Your task to perform on an android device: Play the last video I watched on Youtube Image 0: 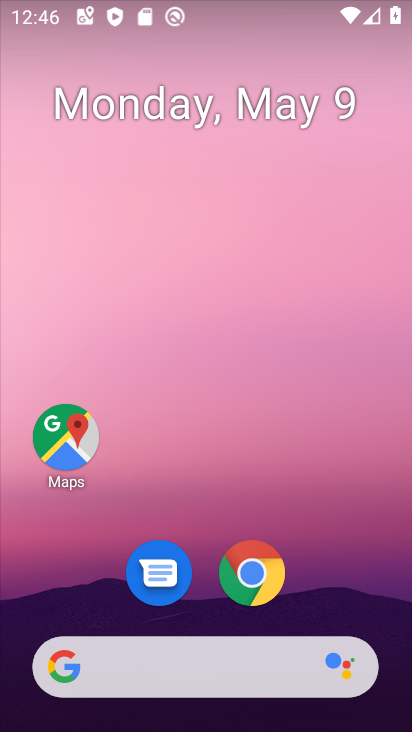
Step 0: drag from (322, 566) to (183, 158)
Your task to perform on an android device: Play the last video I watched on Youtube Image 1: 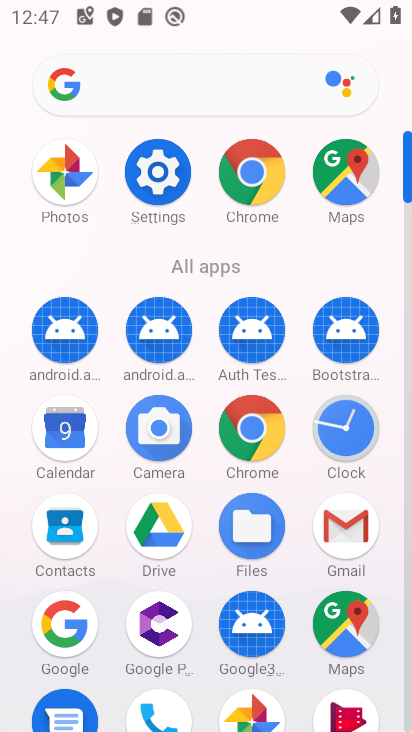
Step 1: drag from (321, 683) to (334, 173)
Your task to perform on an android device: Play the last video I watched on Youtube Image 2: 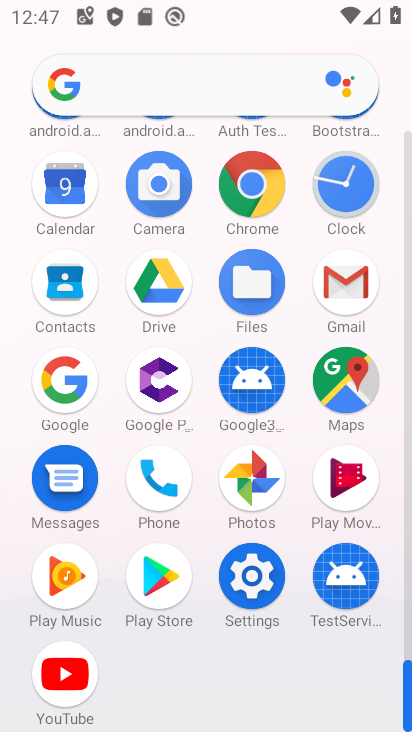
Step 2: click (74, 669)
Your task to perform on an android device: Play the last video I watched on Youtube Image 3: 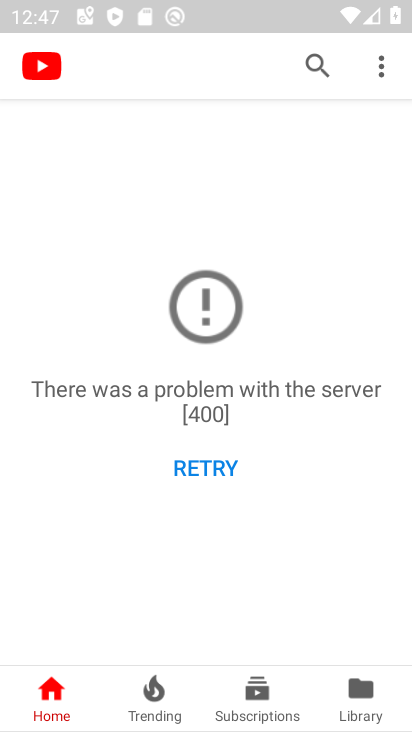
Step 3: click (348, 694)
Your task to perform on an android device: Play the last video I watched on Youtube Image 4: 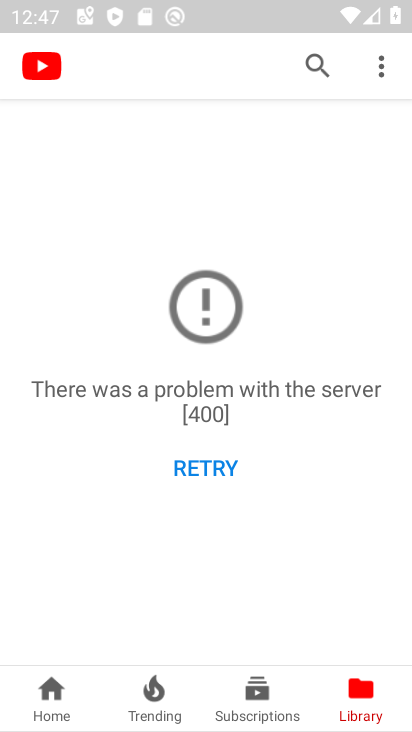
Step 4: click (349, 694)
Your task to perform on an android device: Play the last video I watched on Youtube Image 5: 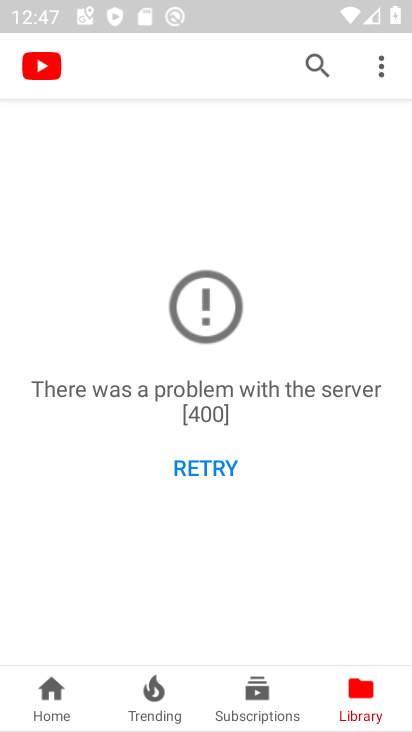
Step 5: click (219, 466)
Your task to perform on an android device: Play the last video I watched on Youtube Image 6: 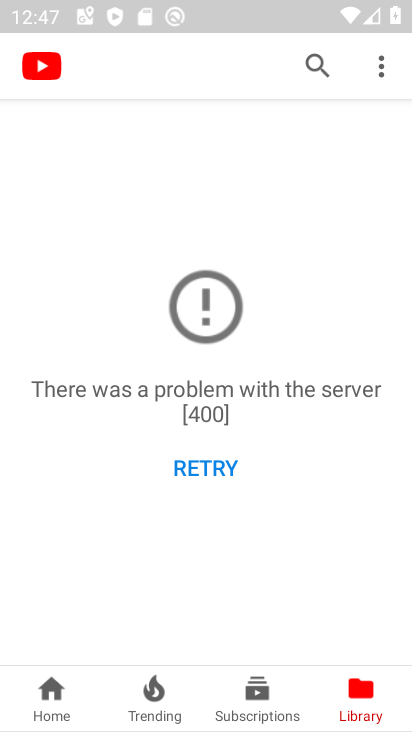
Step 6: task complete